Your task to perform on an android device: Do I have any events this weekend? Image 0: 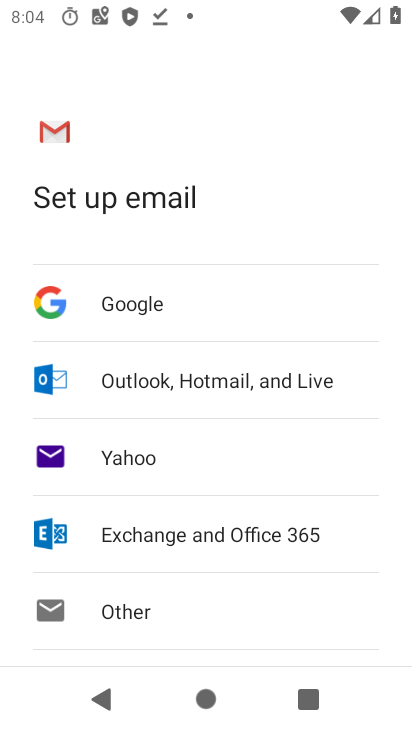
Step 0: click (7, 383)
Your task to perform on an android device: Do I have any events this weekend? Image 1: 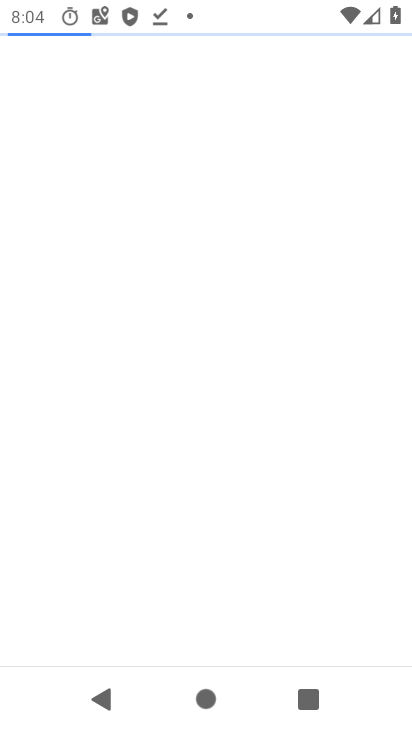
Step 1: press home button
Your task to perform on an android device: Do I have any events this weekend? Image 2: 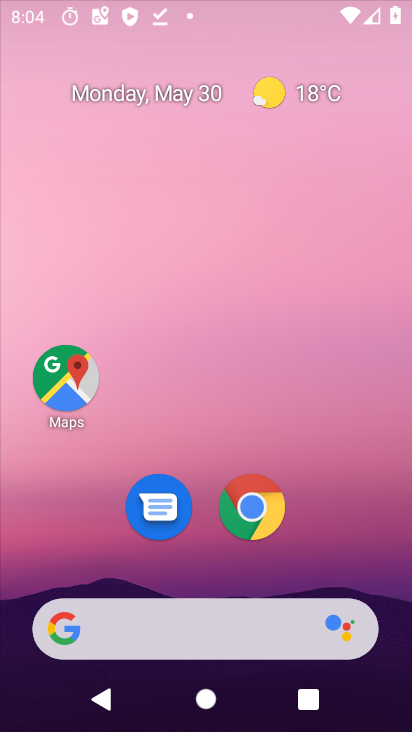
Step 2: drag from (355, 506) to (298, 113)
Your task to perform on an android device: Do I have any events this weekend? Image 3: 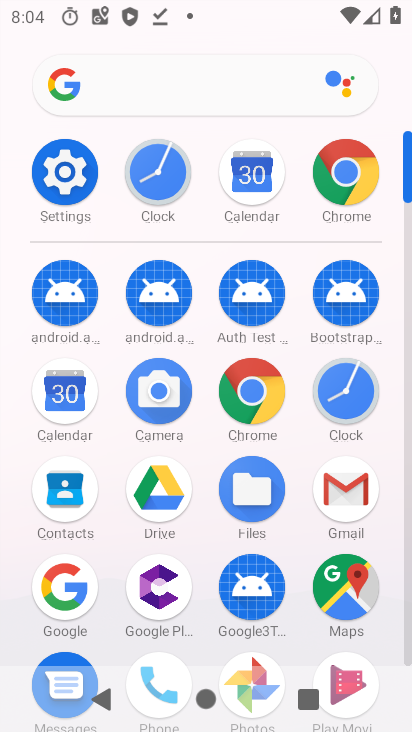
Step 3: click (62, 413)
Your task to perform on an android device: Do I have any events this weekend? Image 4: 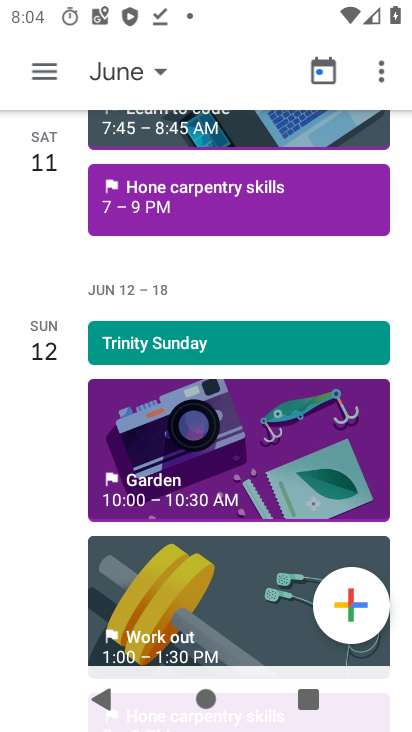
Step 4: click (119, 71)
Your task to perform on an android device: Do I have any events this weekend? Image 5: 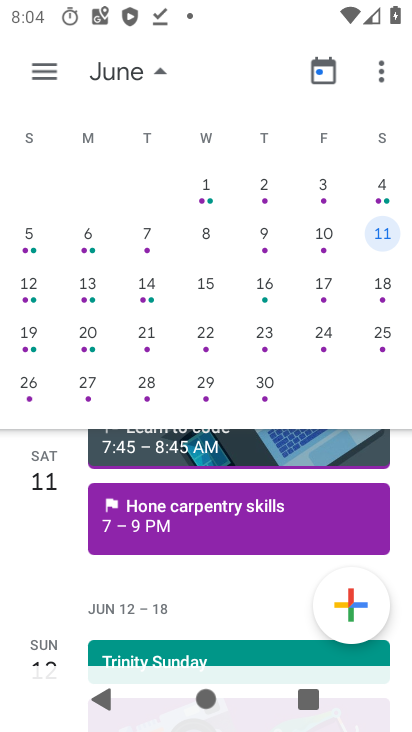
Step 5: click (208, 187)
Your task to perform on an android device: Do I have any events this weekend? Image 6: 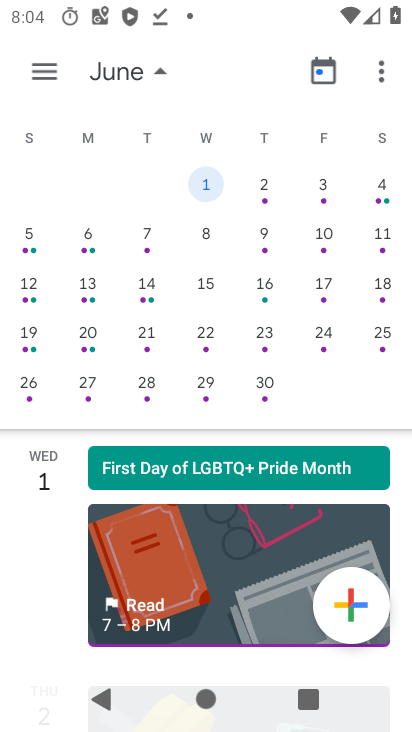
Step 6: task complete